Your task to perform on an android device: What's the weather going to be this weekend? Image 0: 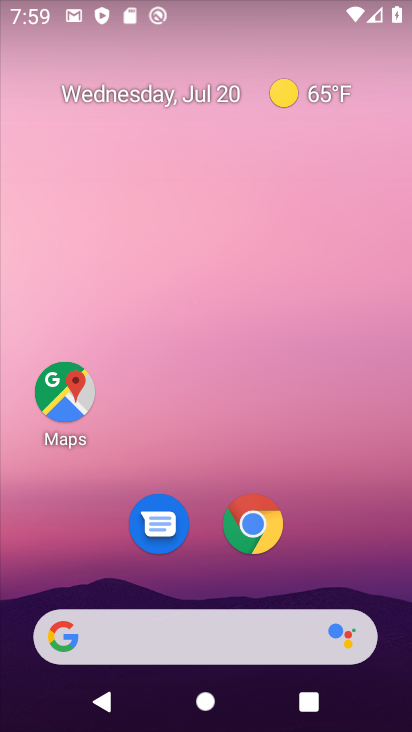
Step 0: click (199, 630)
Your task to perform on an android device: What's the weather going to be this weekend? Image 1: 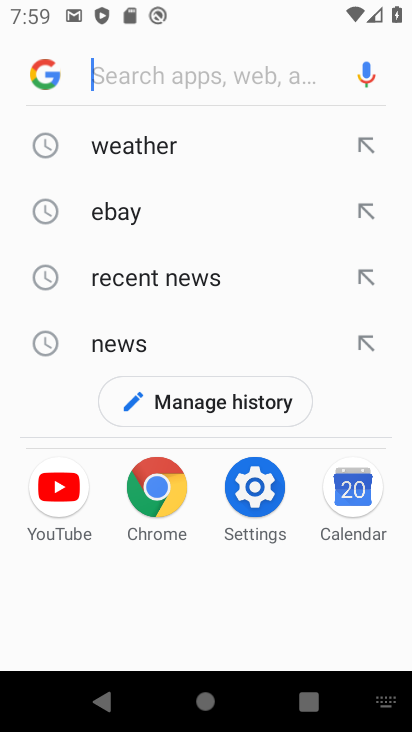
Step 1: click (43, 72)
Your task to perform on an android device: What's the weather going to be this weekend? Image 2: 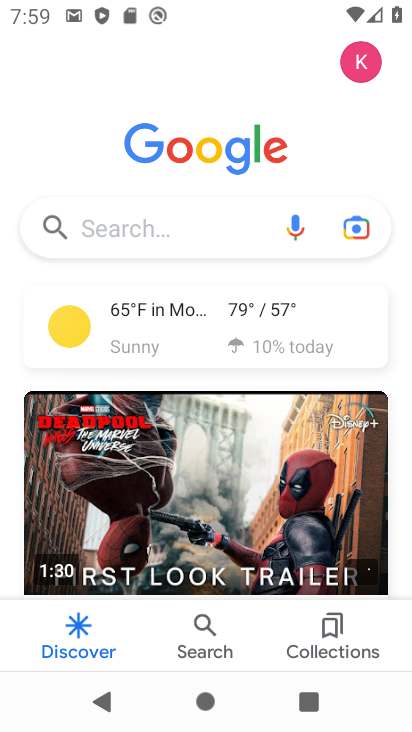
Step 2: click (151, 316)
Your task to perform on an android device: What's the weather going to be this weekend? Image 3: 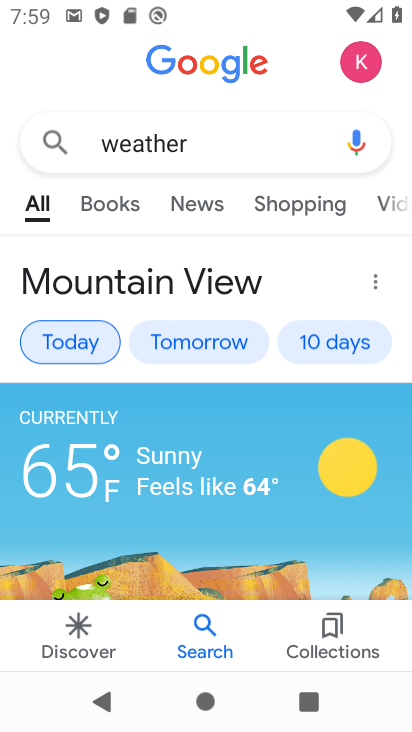
Step 3: click (319, 332)
Your task to perform on an android device: What's the weather going to be this weekend? Image 4: 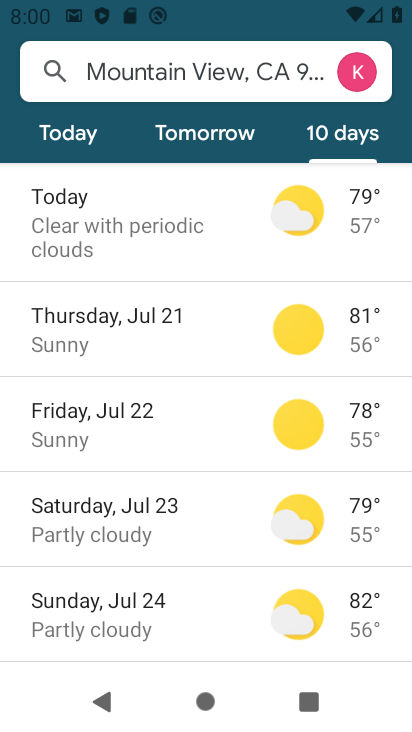
Step 4: click (137, 505)
Your task to perform on an android device: What's the weather going to be this weekend? Image 5: 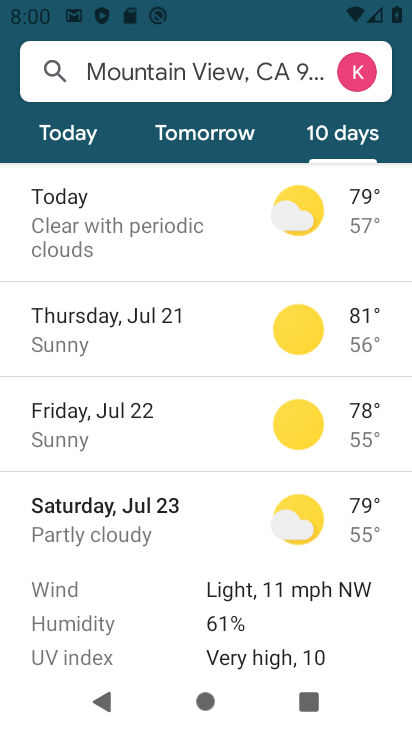
Step 5: task complete